Your task to perform on an android device: Open Chrome and go to settings Image 0: 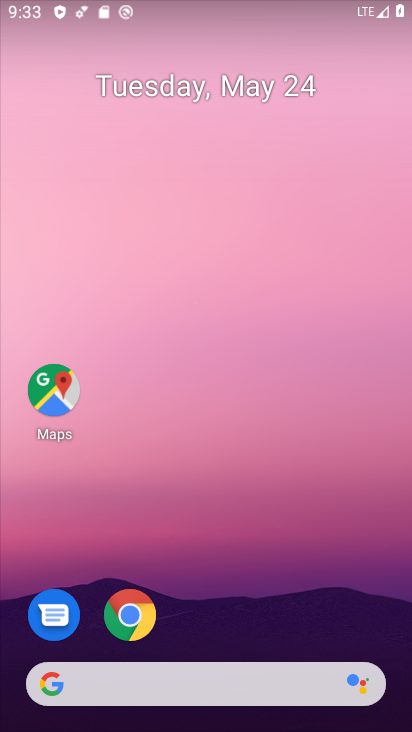
Step 0: click (121, 608)
Your task to perform on an android device: Open Chrome and go to settings Image 1: 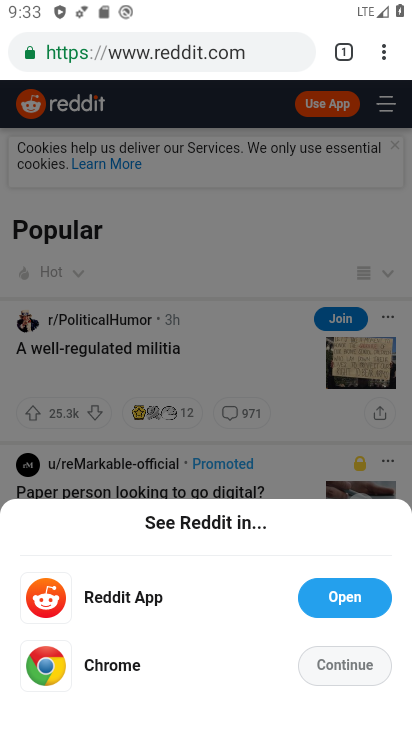
Step 1: click (374, 54)
Your task to perform on an android device: Open Chrome and go to settings Image 2: 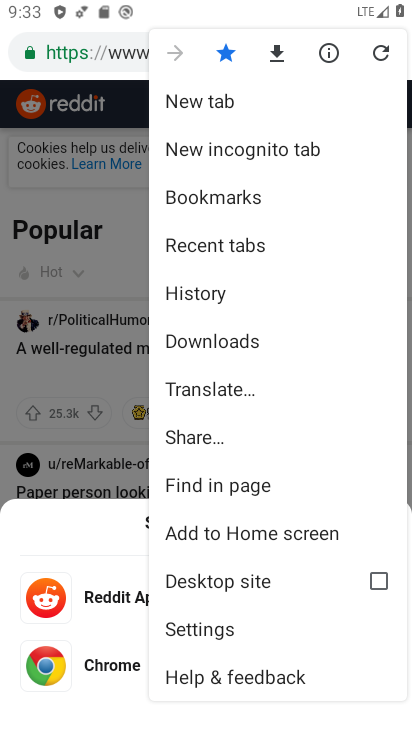
Step 2: click (241, 631)
Your task to perform on an android device: Open Chrome and go to settings Image 3: 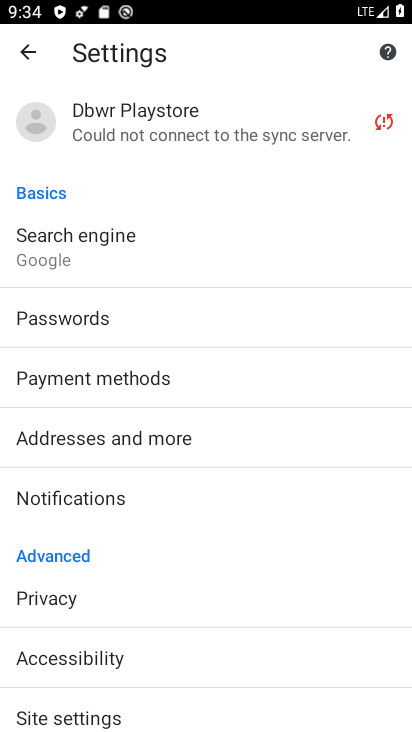
Step 3: task complete